Your task to perform on an android device: What's a good restaurant in Dallas? Image 0: 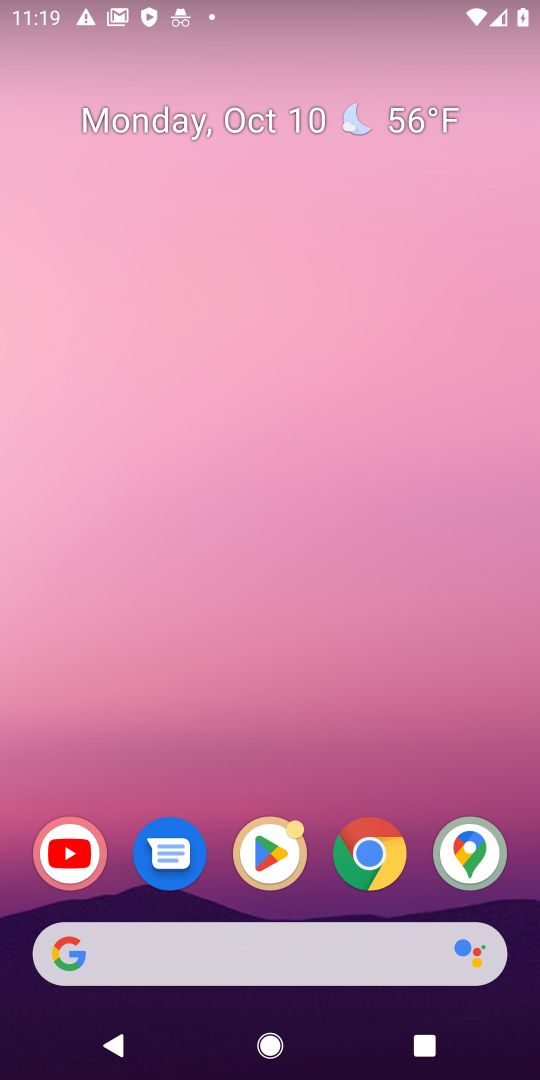
Step 0: click (116, 962)
Your task to perform on an android device: What's a good restaurant in Dallas? Image 1: 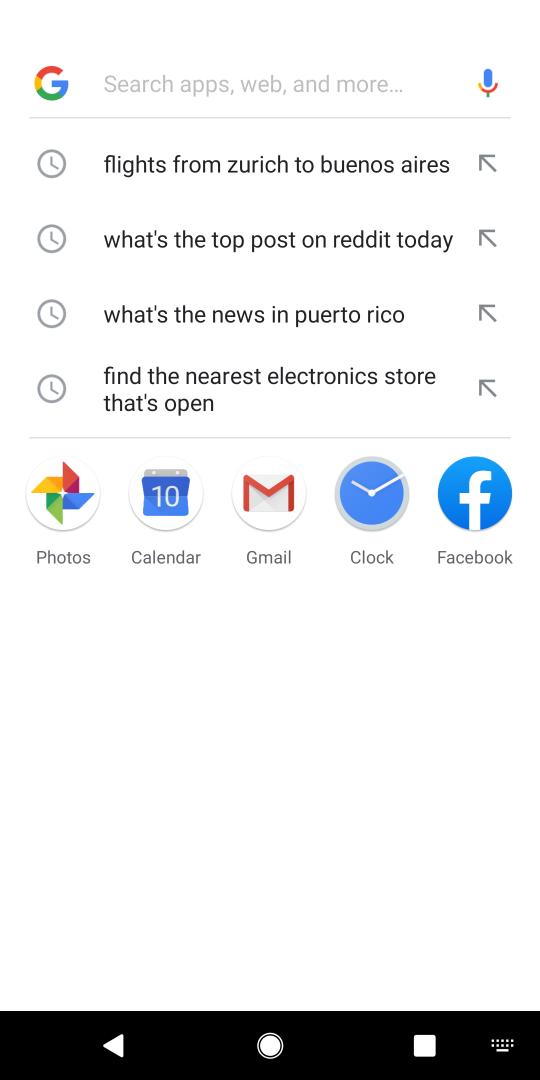
Step 1: type "What's a good restaurant in Dallas"
Your task to perform on an android device: What's a good restaurant in Dallas? Image 2: 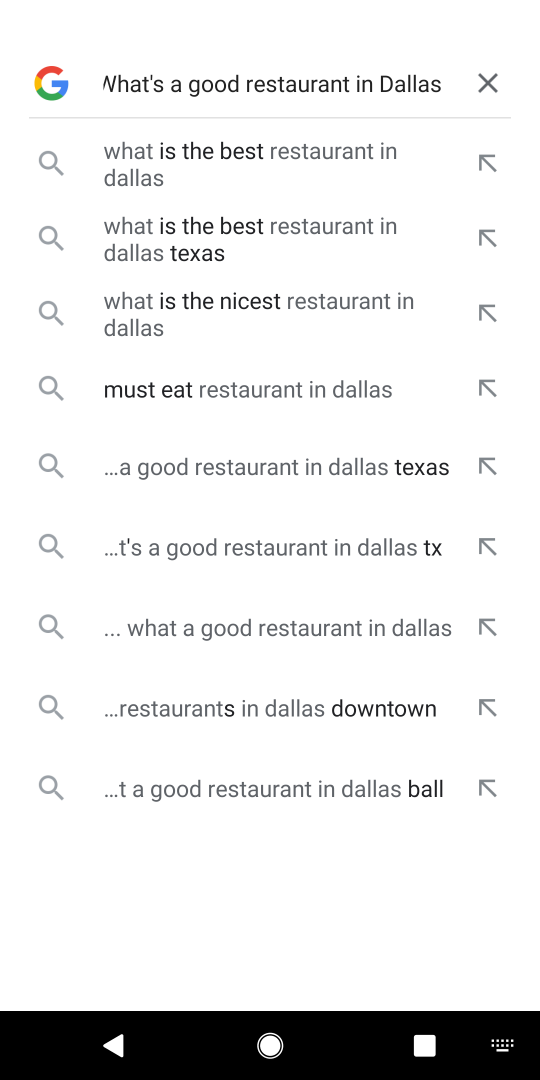
Step 2: press enter
Your task to perform on an android device: What's a good restaurant in Dallas? Image 3: 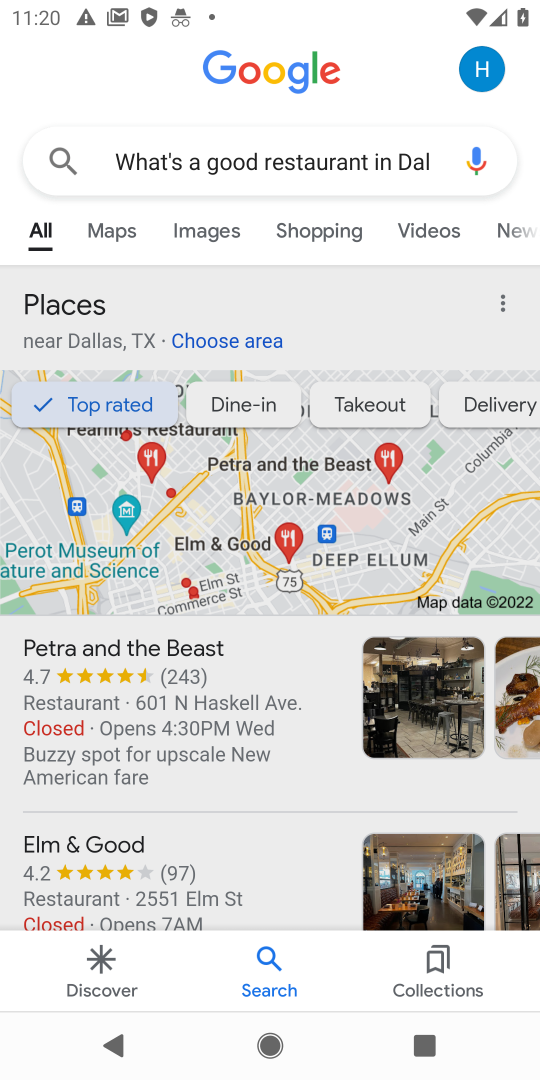
Step 3: task complete